Your task to perform on an android device: change the clock display to show seconds Image 0: 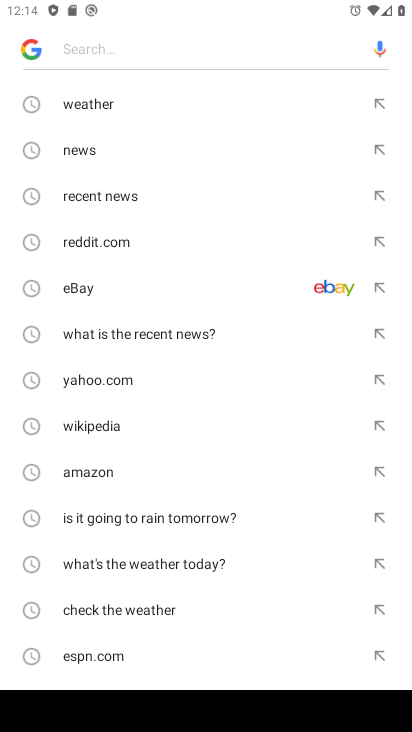
Step 0: press home button
Your task to perform on an android device: change the clock display to show seconds Image 1: 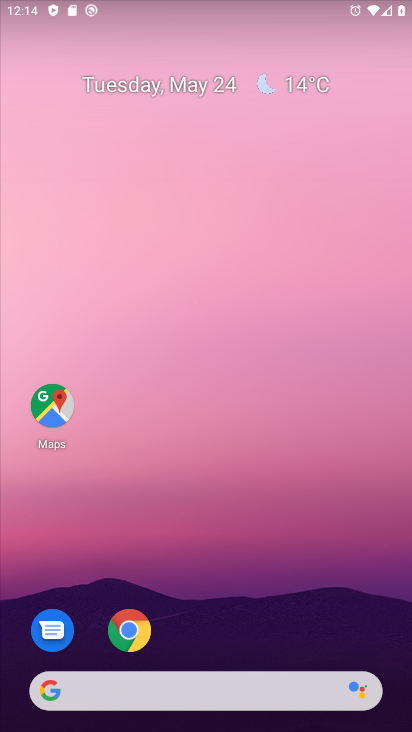
Step 1: drag from (323, 601) to (325, 249)
Your task to perform on an android device: change the clock display to show seconds Image 2: 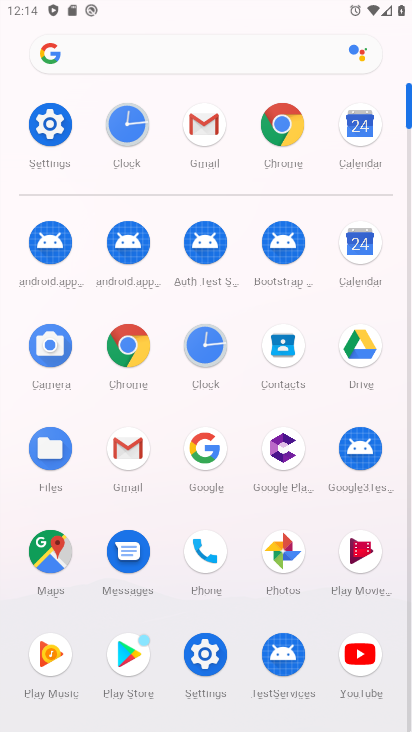
Step 2: click (194, 358)
Your task to perform on an android device: change the clock display to show seconds Image 3: 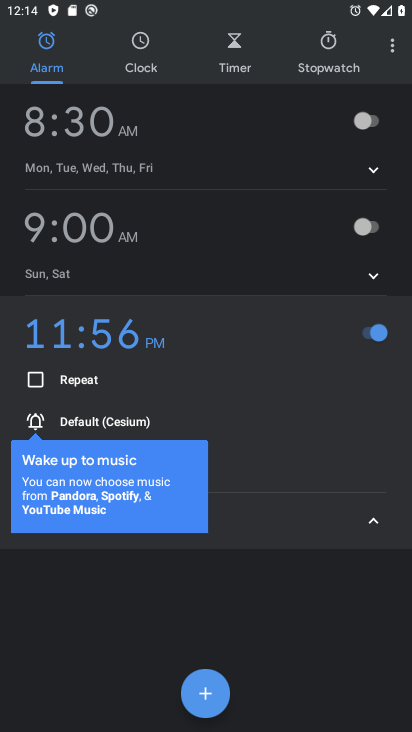
Step 3: click (401, 47)
Your task to perform on an android device: change the clock display to show seconds Image 4: 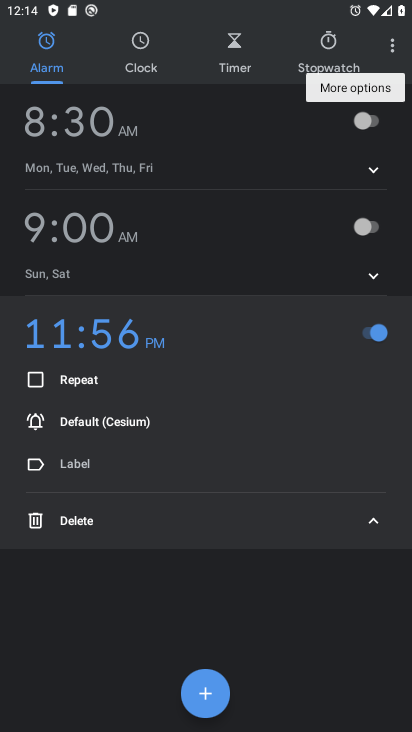
Step 4: click (395, 56)
Your task to perform on an android device: change the clock display to show seconds Image 5: 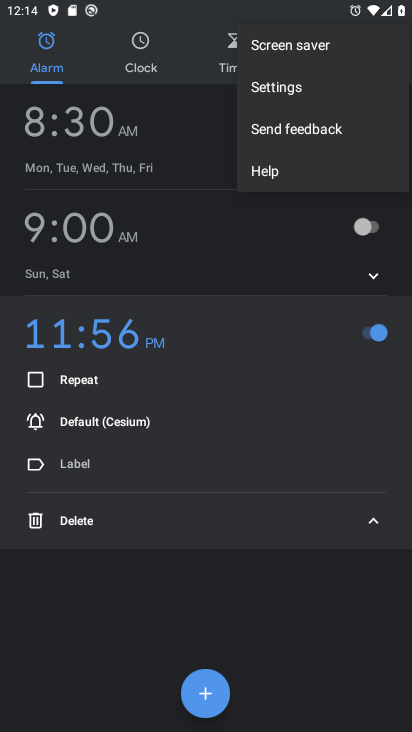
Step 5: click (278, 91)
Your task to perform on an android device: change the clock display to show seconds Image 6: 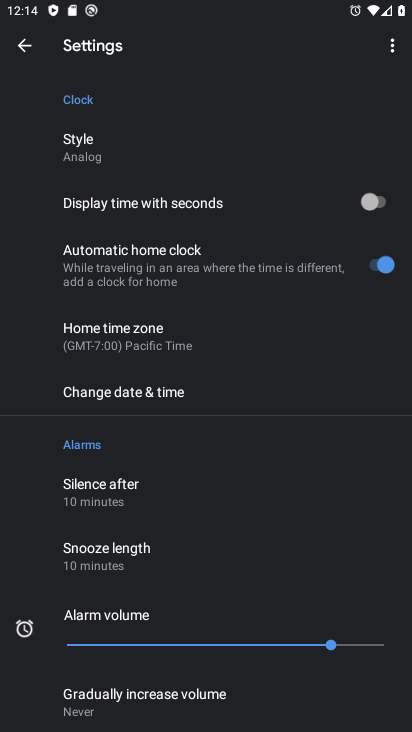
Step 6: click (212, 216)
Your task to perform on an android device: change the clock display to show seconds Image 7: 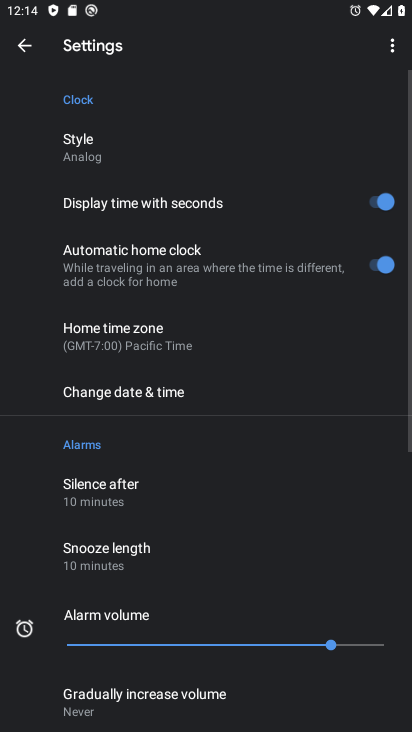
Step 7: task complete